Your task to perform on an android device: Open the stopwatch Image 0: 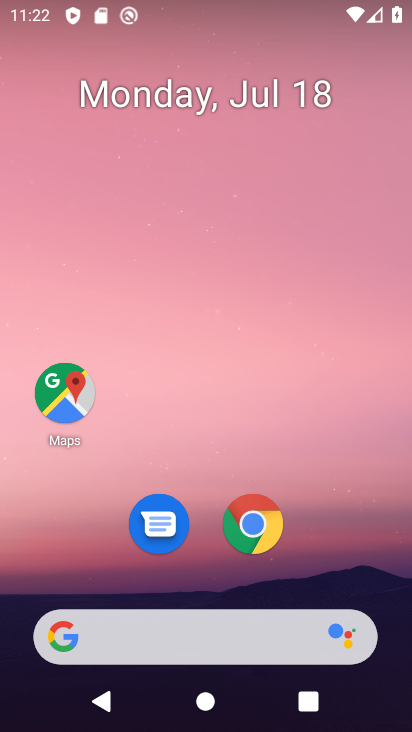
Step 0: drag from (316, 531) to (357, 76)
Your task to perform on an android device: Open the stopwatch Image 1: 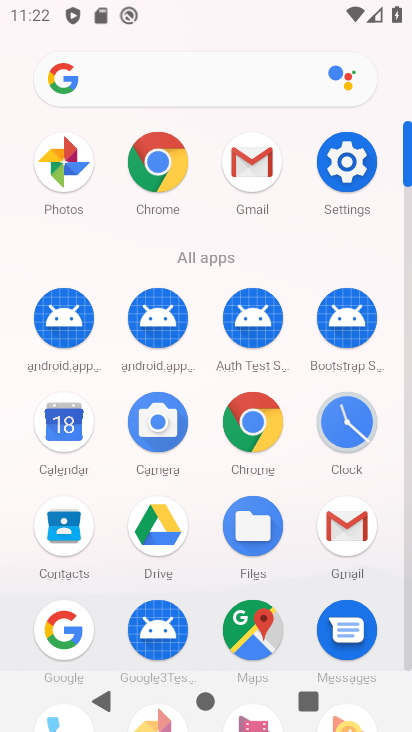
Step 1: click (350, 425)
Your task to perform on an android device: Open the stopwatch Image 2: 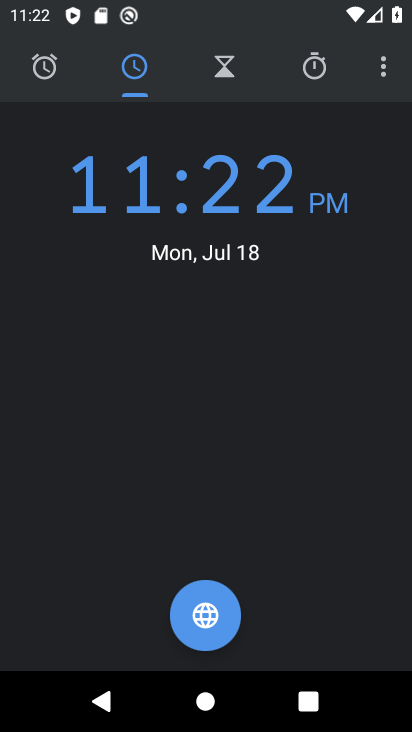
Step 2: click (317, 62)
Your task to perform on an android device: Open the stopwatch Image 3: 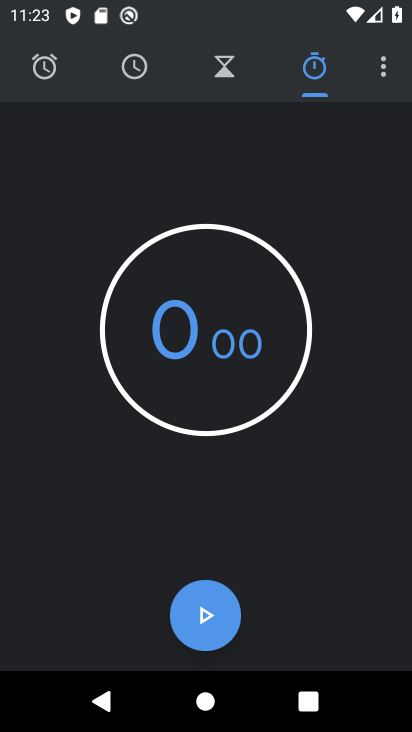
Step 3: task complete